Your task to perform on an android device: turn off airplane mode Image 0: 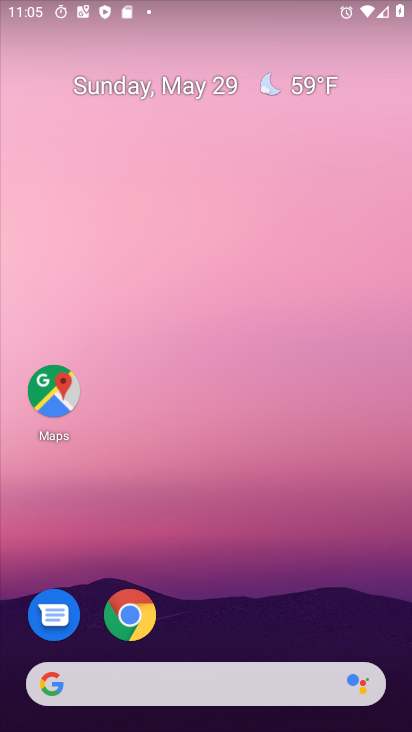
Step 0: drag from (356, 103) to (356, 68)
Your task to perform on an android device: turn off airplane mode Image 1: 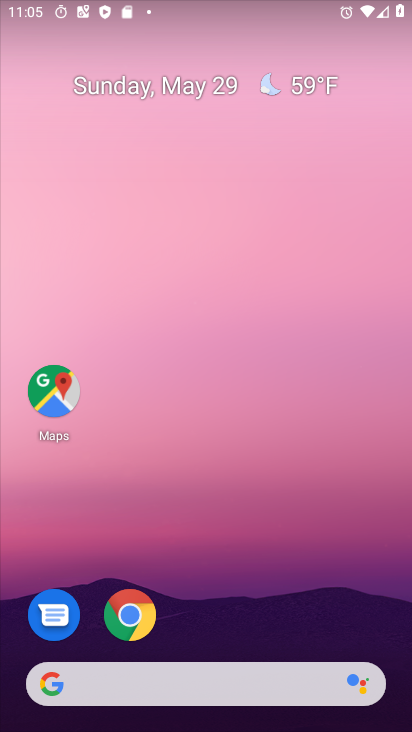
Step 1: drag from (206, 623) to (247, 35)
Your task to perform on an android device: turn off airplane mode Image 2: 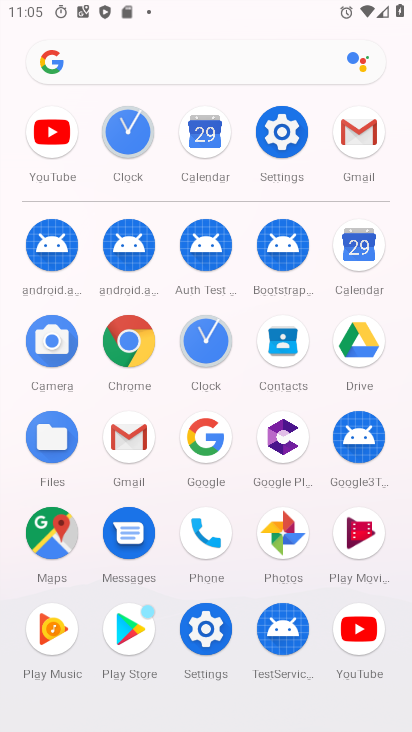
Step 2: click (275, 129)
Your task to perform on an android device: turn off airplane mode Image 3: 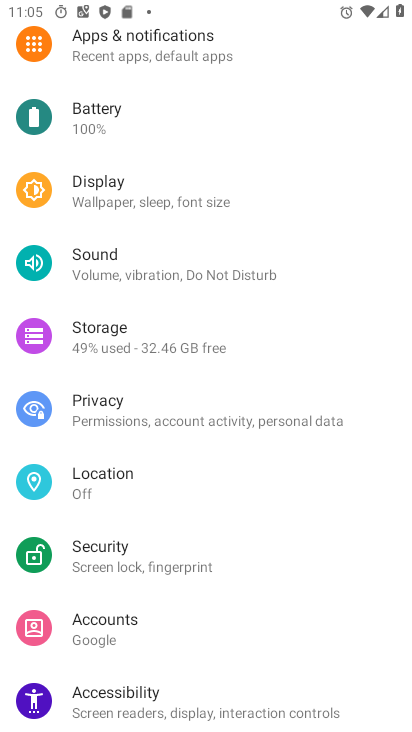
Step 3: drag from (162, 72) to (234, 556)
Your task to perform on an android device: turn off airplane mode Image 4: 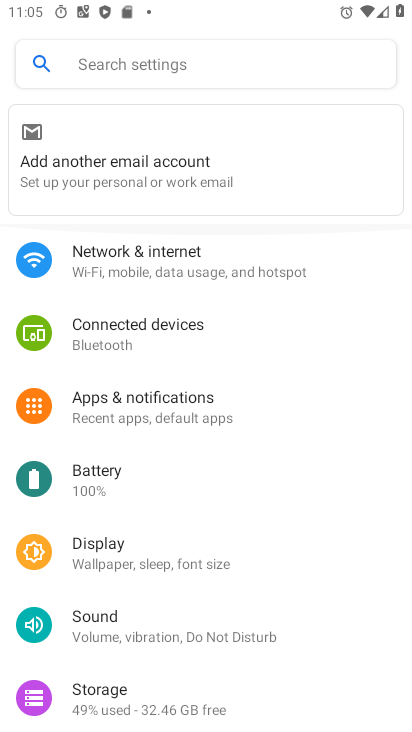
Step 4: click (176, 259)
Your task to perform on an android device: turn off airplane mode Image 5: 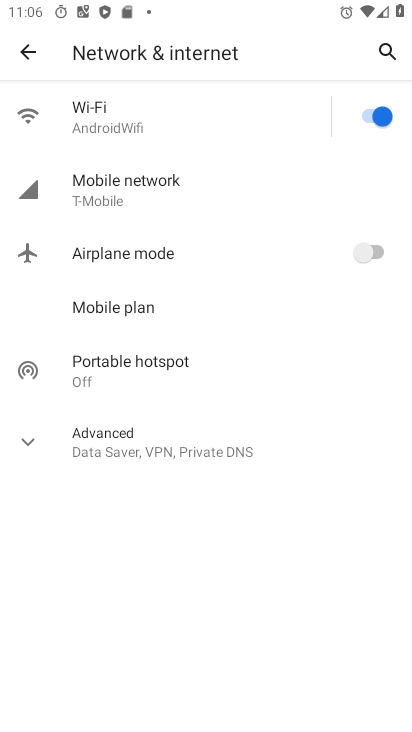
Step 5: task complete